Your task to perform on an android device: Open calendar and show me the fourth week of next month Image 0: 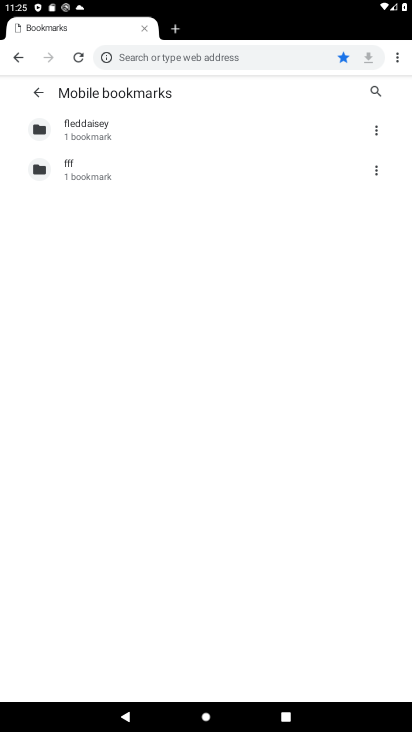
Step 0: press home button
Your task to perform on an android device: Open calendar and show me the fourth week of next month Image 1: 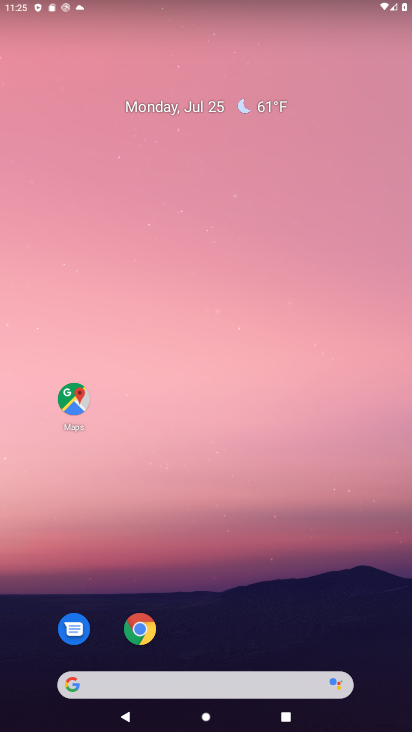
Step 1: drag from (228, 537) to (338, 131)
Your task to perform on an android device: Open calendar and show me the fourth week of next month Image 2: 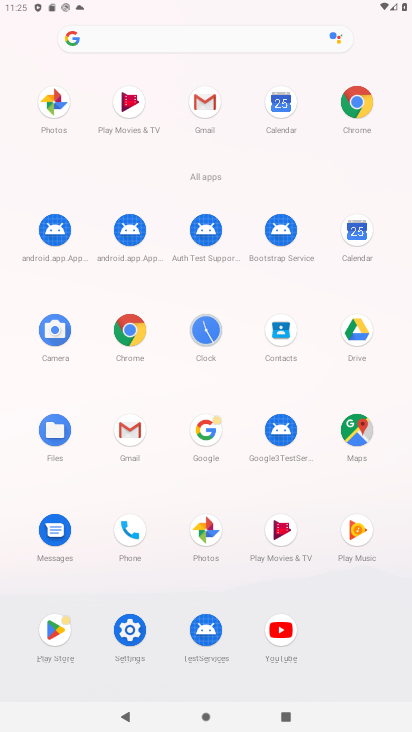
Step 2: click (363, 223)
Your task to perform on an android device: Open calendar and show me the fourth week of next month Image 3: 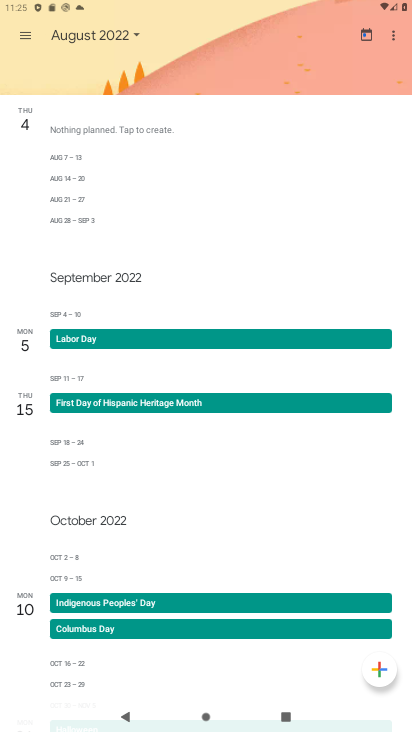
Step 3: click (366, 31)
Your task to perform on an android device: Open calendar and show me the fourth week of next month Image 4: 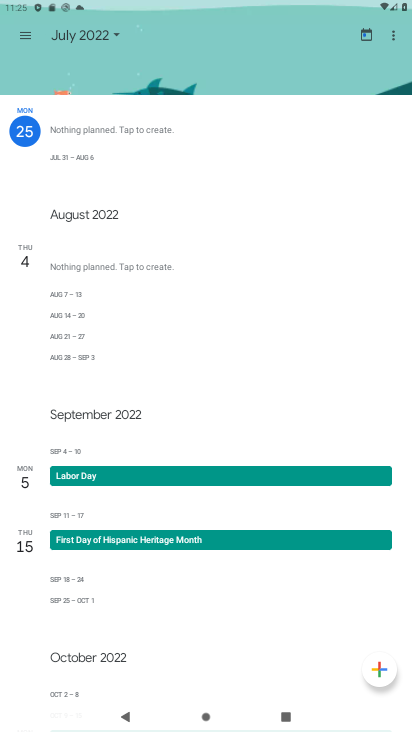
Step 4: click (104, 31)
Your task to perform on an android device: Open calendar and show me the fourth week of next month Image 5: 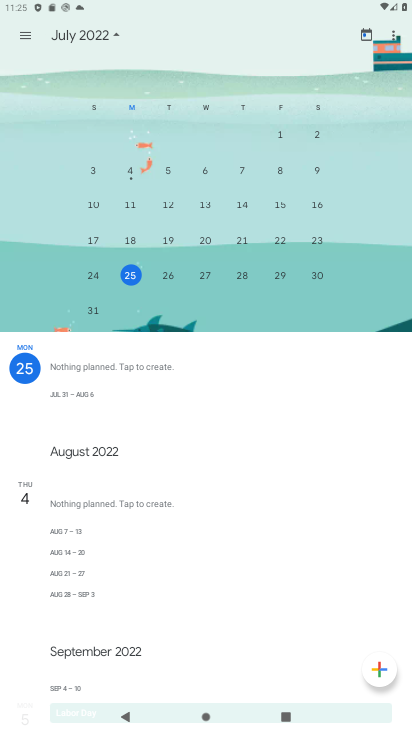
Step 5: drag from (293, 219) to (0, 259)
Your task to perform on an android device: Open calendar and show me the fourth week of next month Image 6: 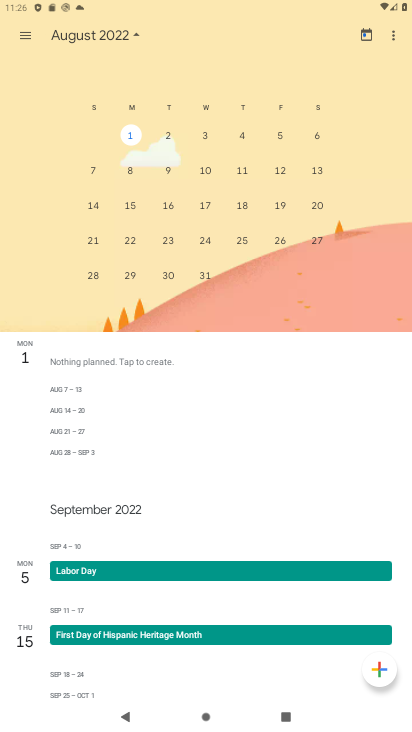
Step 6: click (200, 244)
Your task to perform on an android device: Open calendar and show me the fourth week of next month Image 7: 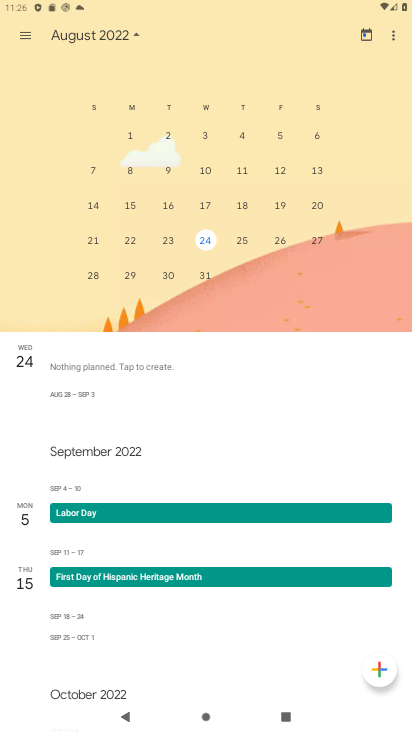
Step 7: task complete